Your task to perform on an android device: Go to eBay Image 0: 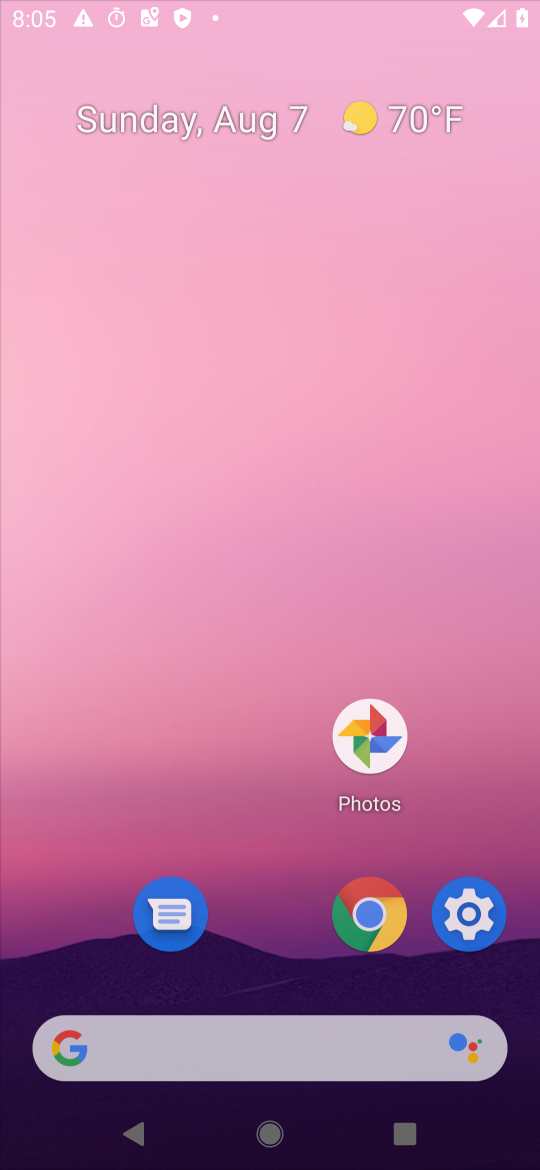
Step 0: press home button
Your task to perform on an android device: Go to eBay Image 1: 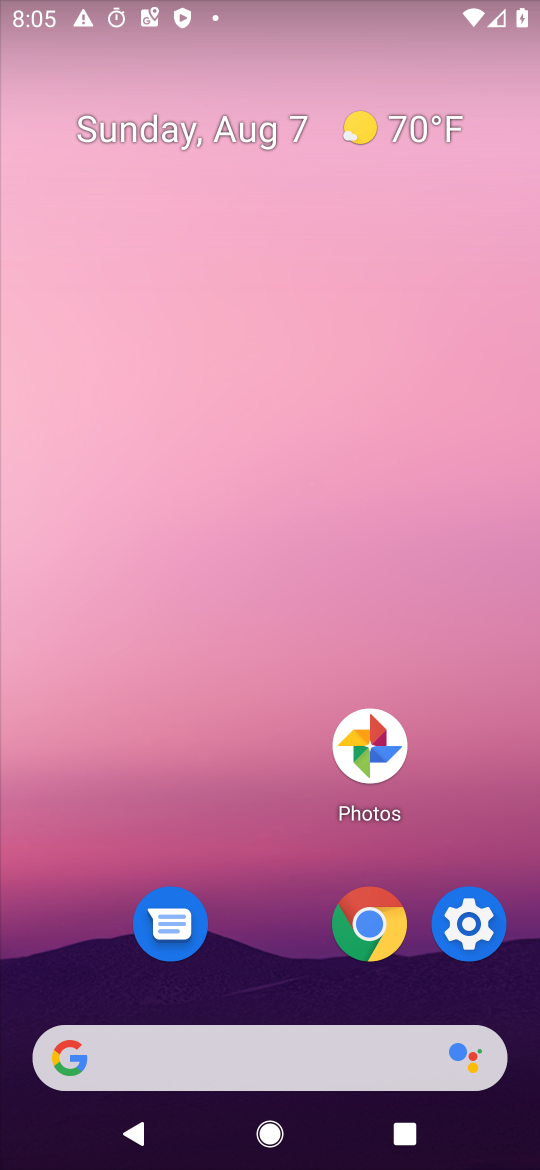
Step 1: drag from (294, 1089) to (414, 449)
Your task to perform on an android device: Go to eBay Image 2: 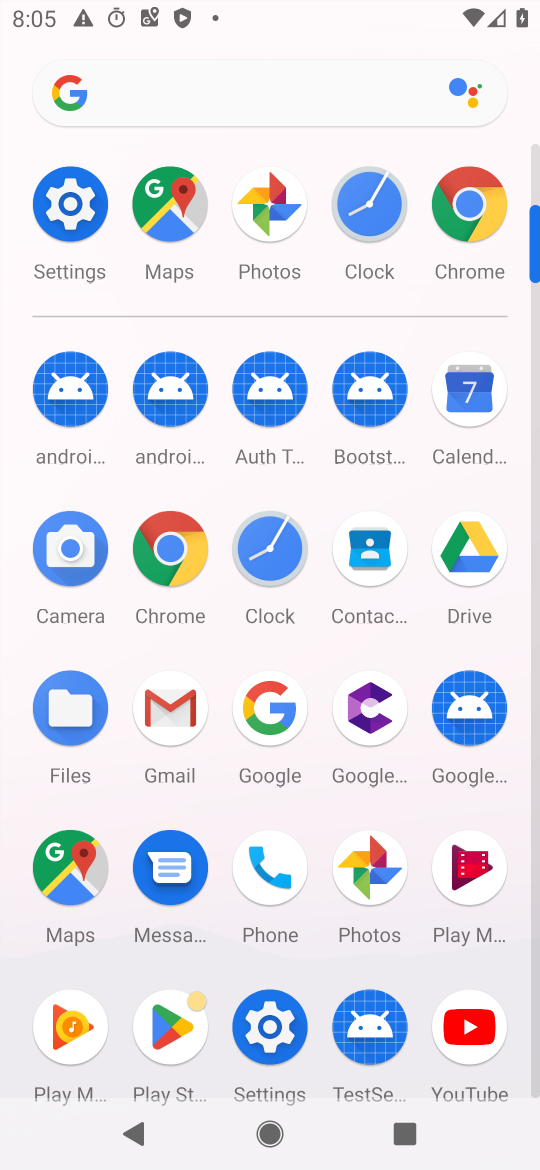
Step 2: click (472, 229)
Your task to perform on an android device: Go to eBay Image 3: 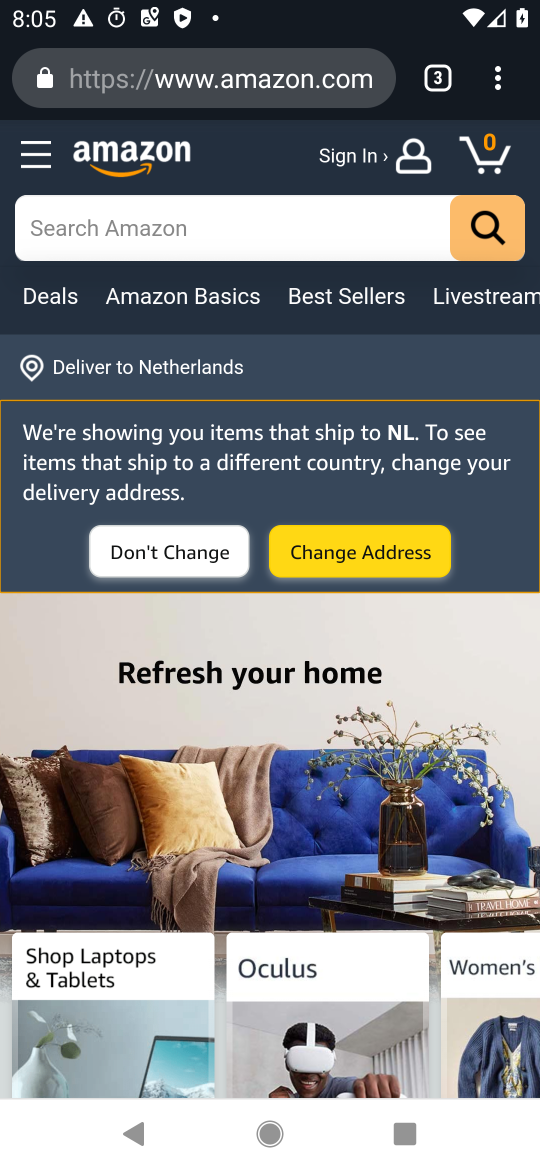
Step 3: click (500, 85)
Your task to perform on an android device: Go to eBay Image 4: 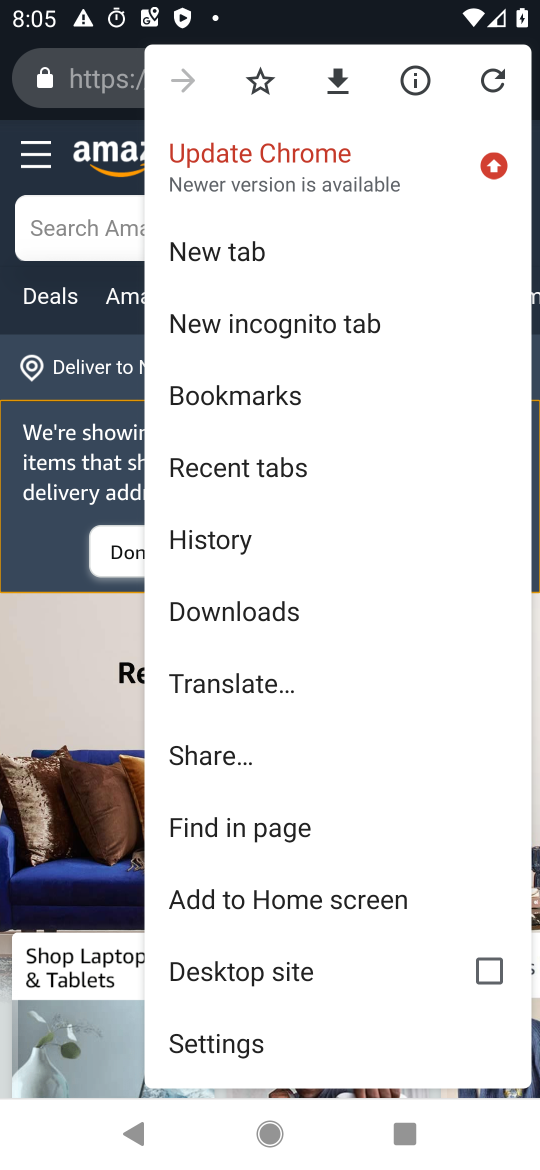
Step 4: click (247, 255)
Your task to perform on an android device: Go to eBay Image 5: 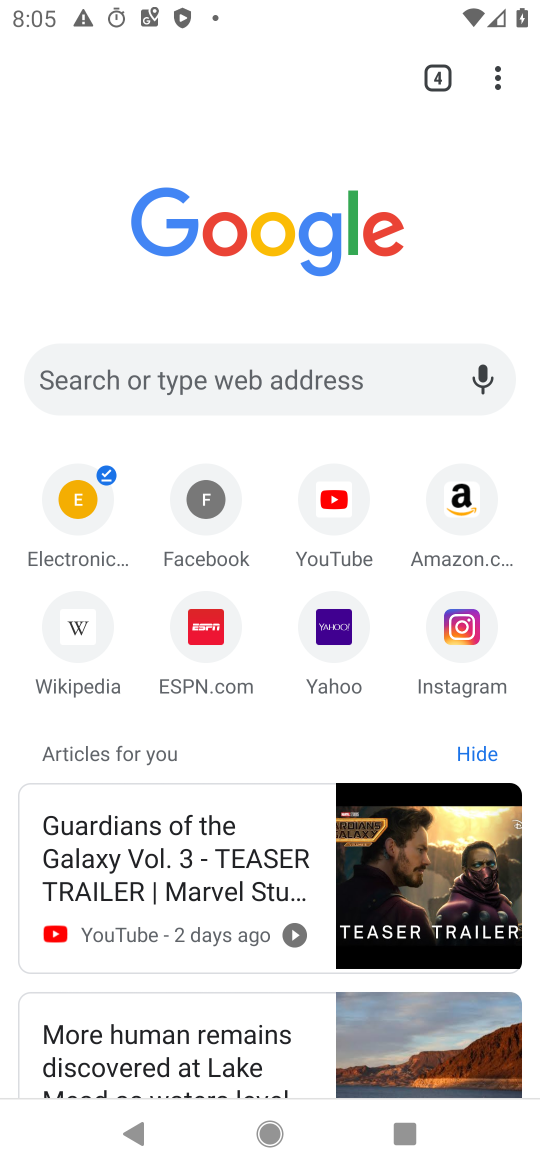
Step 5: click (81, 514)
Your task to perform on an android device: Go to eBay Image 6: 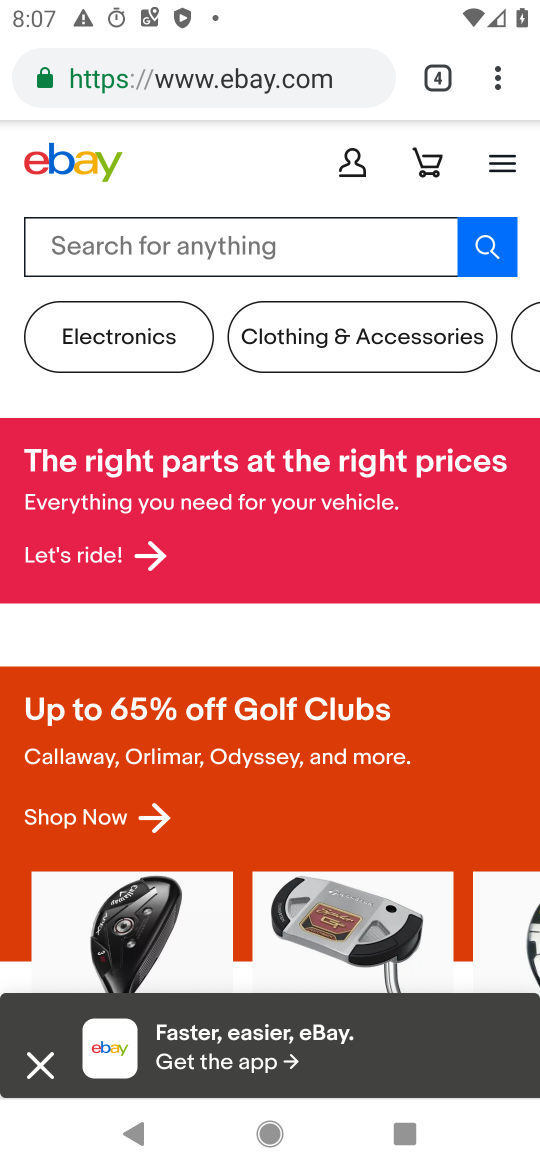
Step 6: task complete